Your task to perform on an android device: delete a single message in the gmail app Image 0: 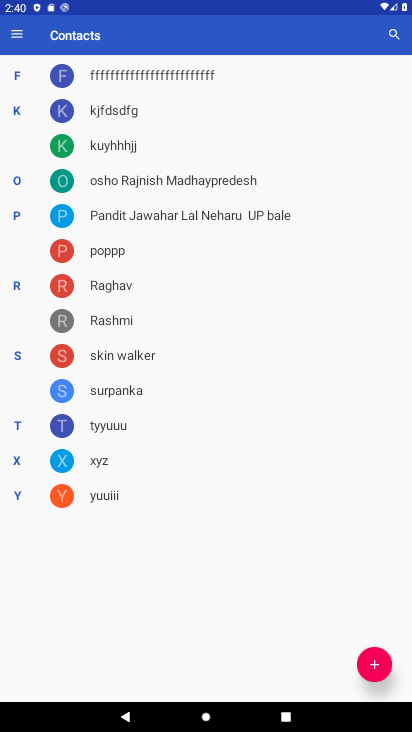
Step 0: press home button
Your task to perform on an android device: delete a single message in the gmail app Image 1: 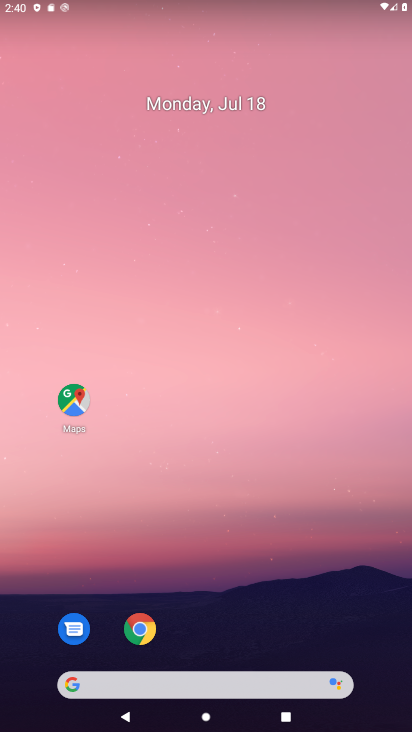
Step 1: drag from (205, 592) to (187, 4)
Your task to perform on an android device: delete a single message in the gmail app Image 2: 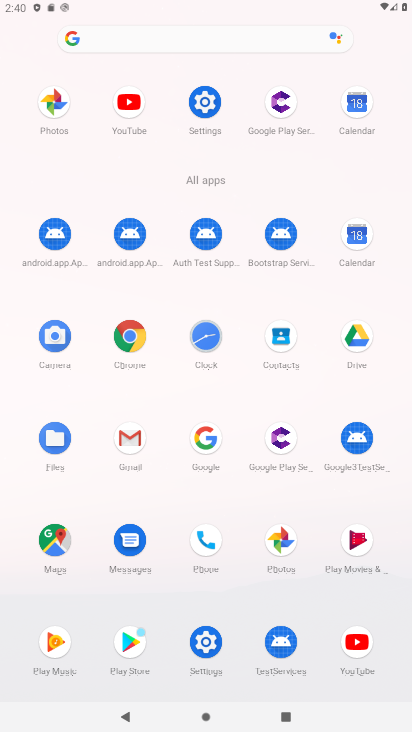
Step 2: click (132, 450)
Your task to perform on an android device: delete a single message in the gmail app Image 3: 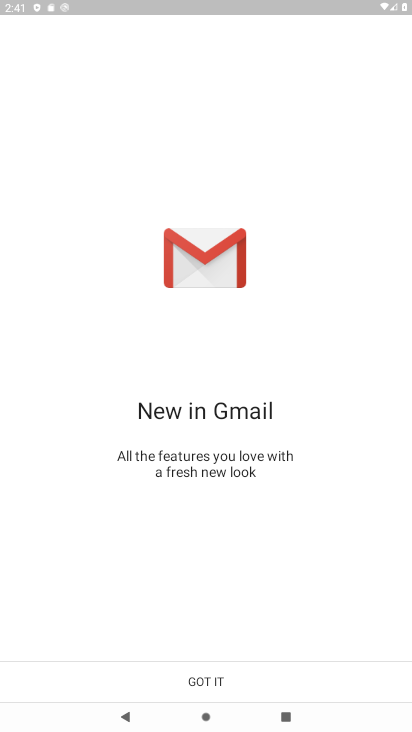
Step 3: click (246, 680)
Your task to perform on an android device: delete a single message in the gmail app Image 4: 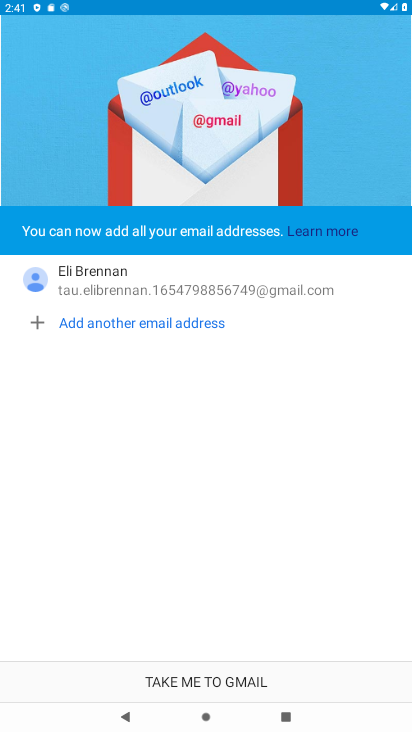
Step 4: click (243, 687)
Your task to perform on an android device: delete a single message in the gmail app Image 5: 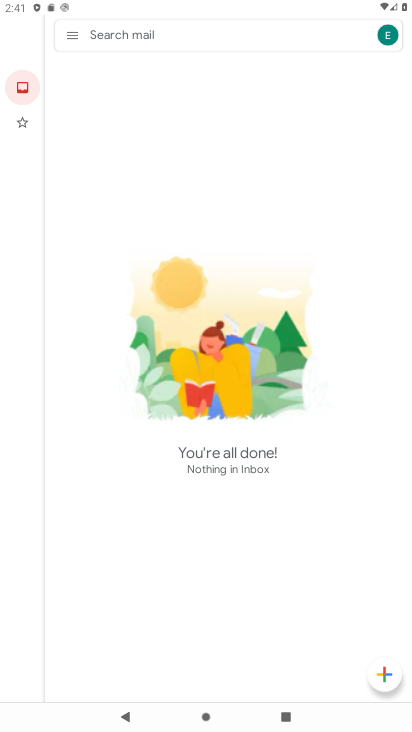
Step 5: task complete